Your task to perform on an android device: What's the weather today? Image 0: 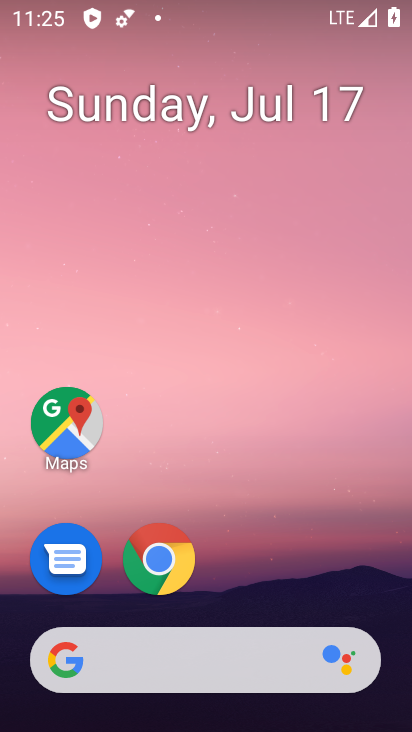
Step 0: click (189, 647)
Your task to perform on an android device: What's the weather today? Image 1: 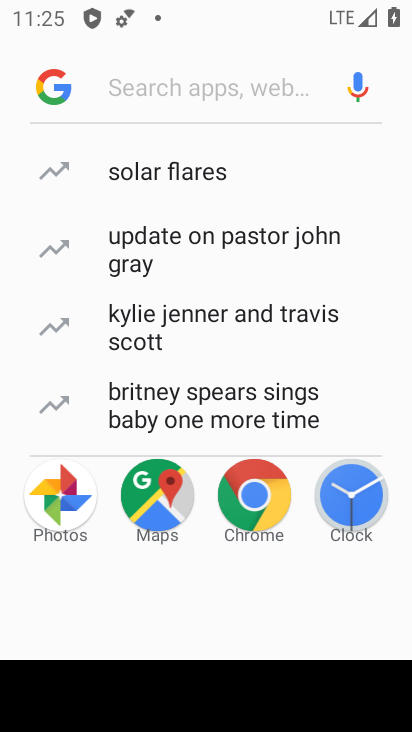
Step 1: click (164, 77)
Your task to perform on an android device: What's the weather today? Image 2: 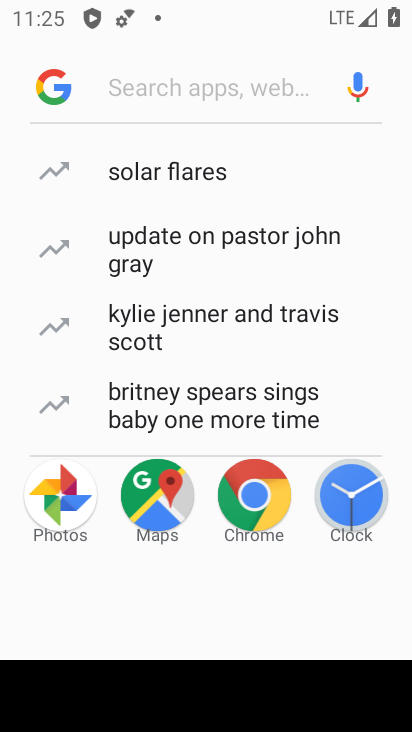
Step 2: type "weather today"
Your task to perform on an android device: What's the weather today? Image 3: 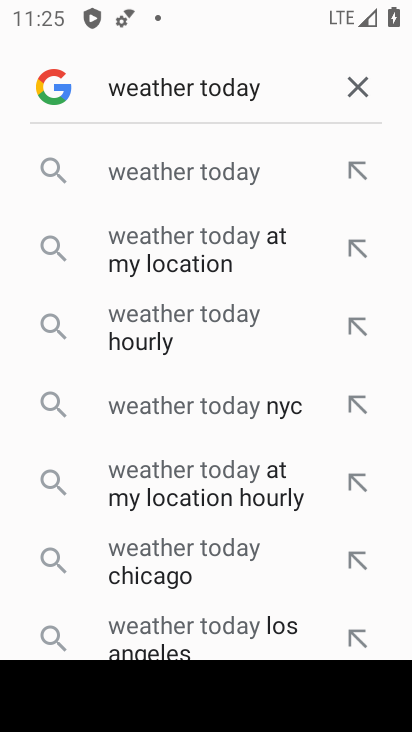
Step 3: click (155, 162)
Your task to perform on an android device: What's the weather today? Image 4: 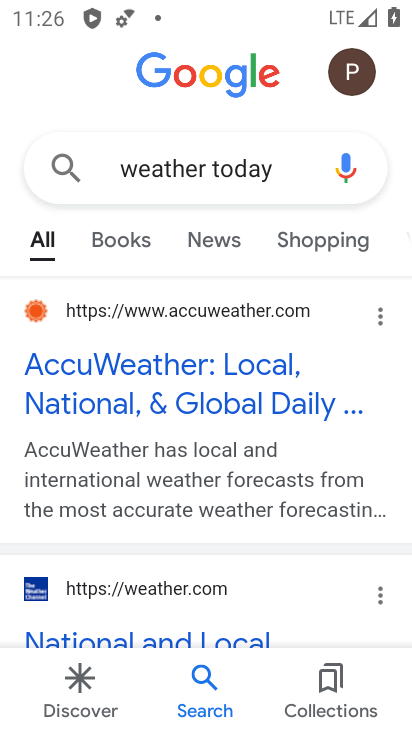
Step 4: click (101, 368)
Your task to perform on an android device: What's the weather today? Image 5: 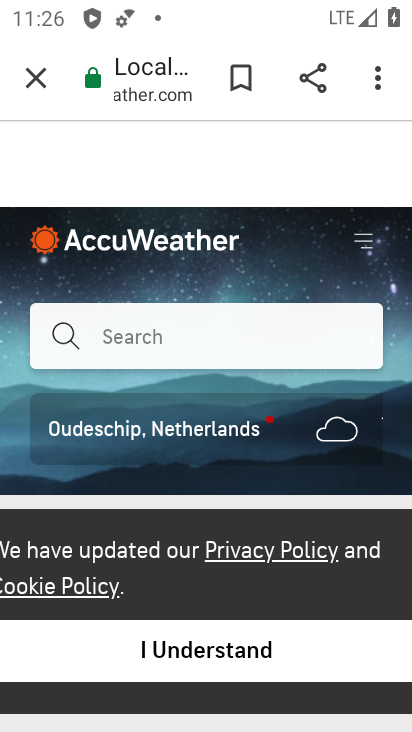
Step 5: task complete